Your task to perform on an android device: manage bookmarks in the chrome app Image 0: 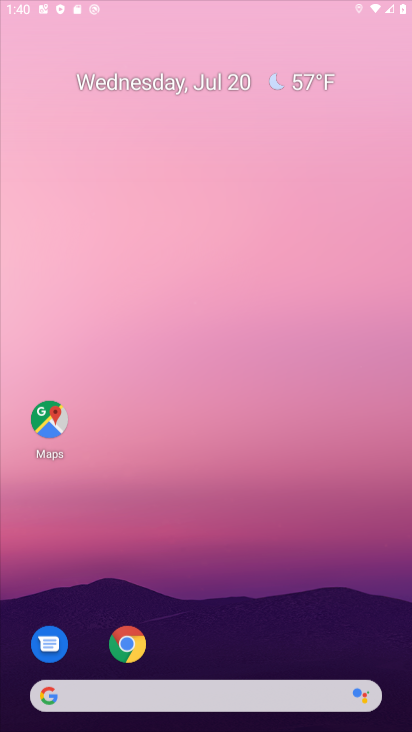
Step 0: press home button
Your task to perform on an android device: manage bookmarks in the chrome app Image 1: 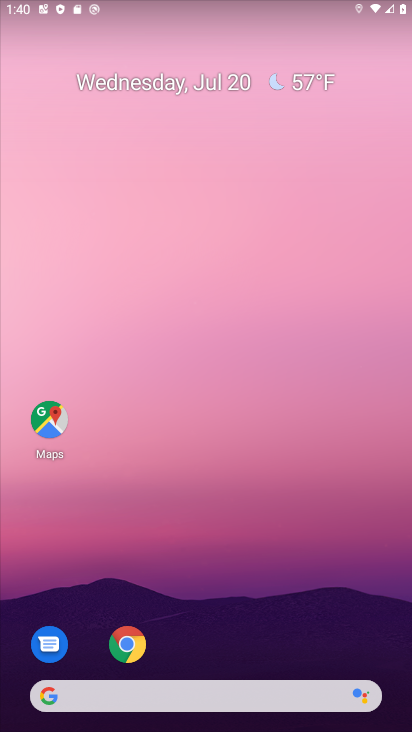
Step 1: drag from (236, 633) to (205, 45)
Your task to perform on an android device: manage bookmarks in the chrome app Image 2: 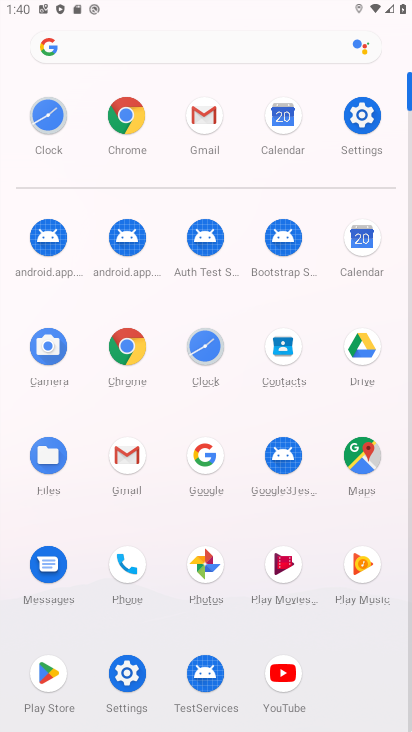
Step 2: click (124, 125)
Your task to perform on an android device: manage bookmarks in the chrome app Image 3: 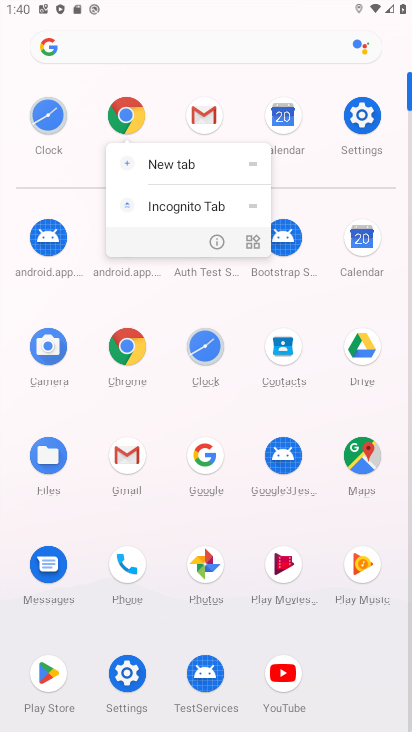
Step 3: click (124, 125)
Your task to perform on an android device: manage bookmarks in the chrome app Image 4: 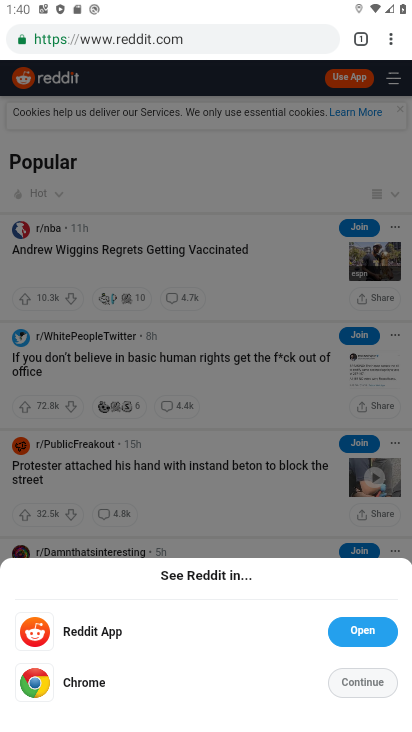
Step 4: drag from (395, 50) to (264, 199)
Your task to perform on an android device: manage bookmarks in the chrome app Image 5: 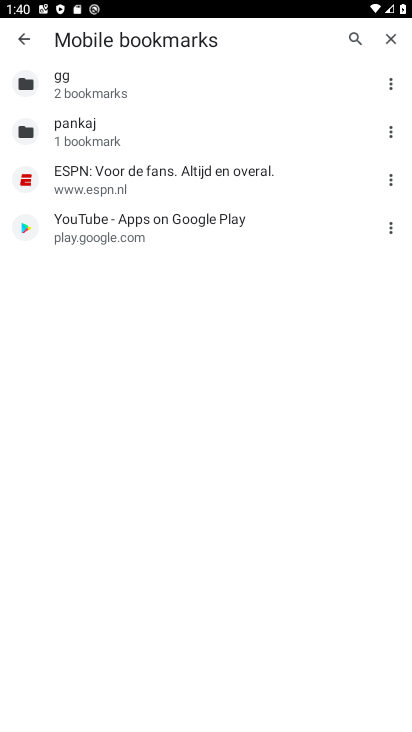
Step 5: click (394, 89)
Your task to perform on an android device: manage bookmarks in the chrome app Image 6: 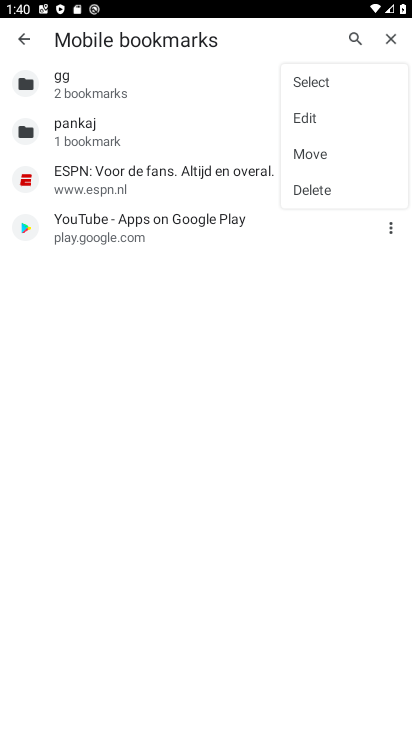
Step 6: click (304, 112)
Your task to perform on an android device: manage bookmarks in the chrome app Image 7: 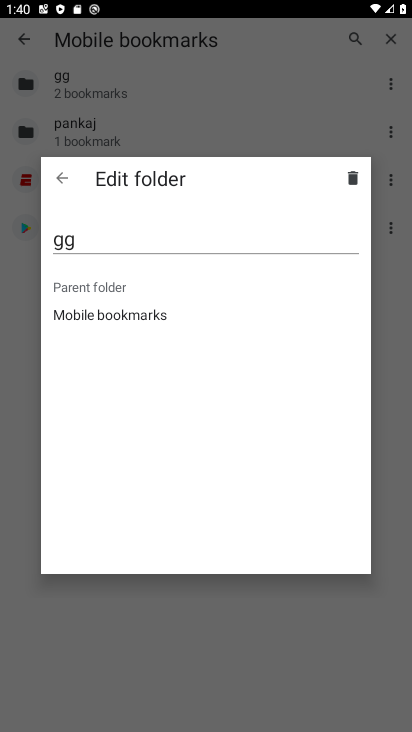
Step 7: task complete